Your task to perform on an android device: Go to ESPN.com Image 0: 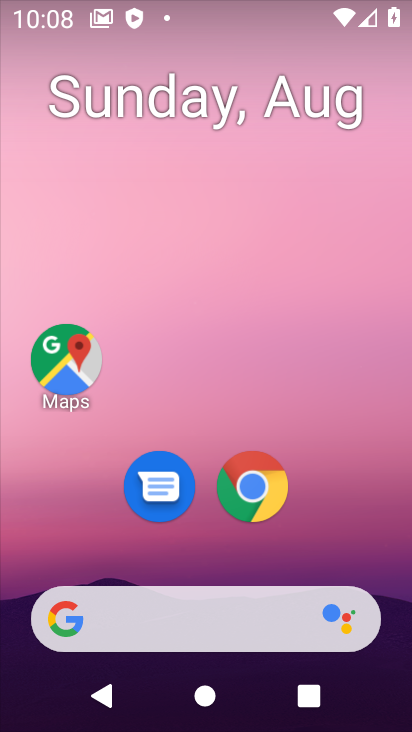
Step 0: click (182, 607)
Your task to perform on an android device: Go to ESPN.com Image 1: 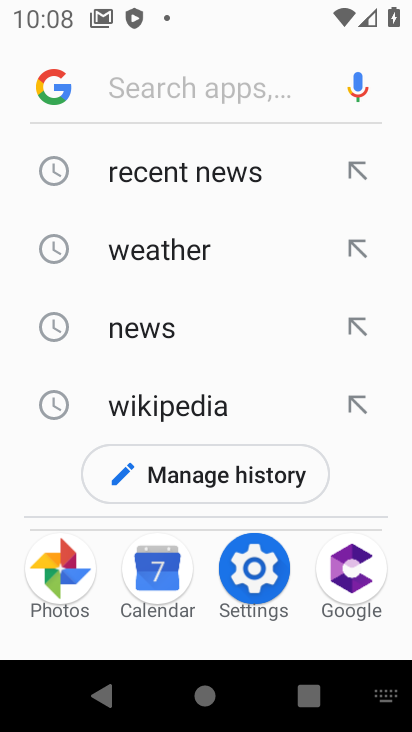
Step 1: type "espn.com"
Your task to perform on an android device: Go to ESPN.com Image 2: 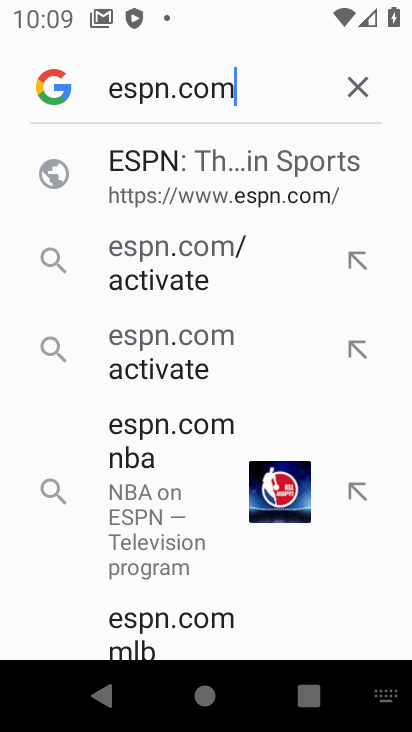
Step 2: click (154, 179)
Your task to perform on an android device: Go to ESPN.com Image 3: 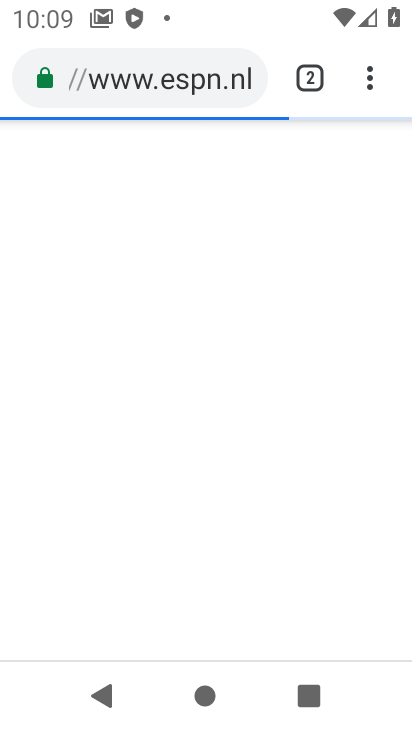
Step 3: task complete